Your task to perform on an android device: delete location history Image 0: 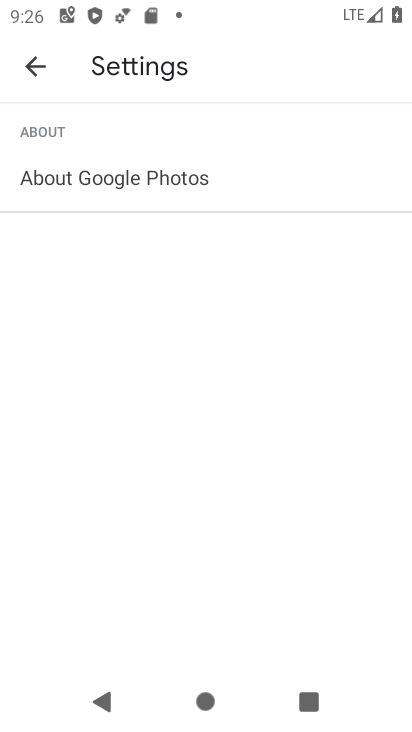
Step 0: press home button
Your task to perform on an android device: delete location history Image 1: 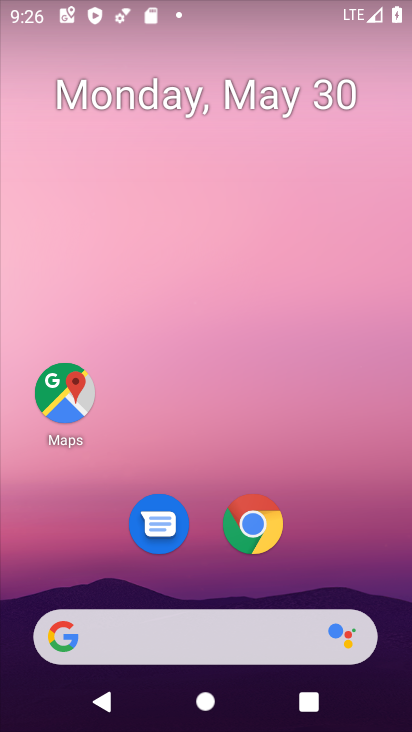
Step 1: click (61, 377)
Your task to perform on an android device: delete location history Image 2: 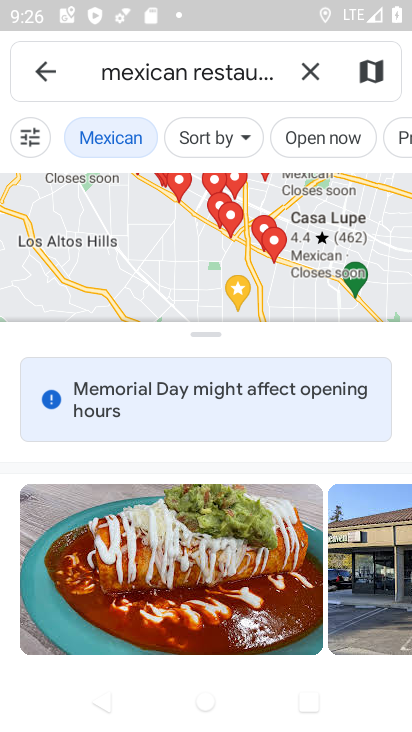
Step 2: click (309, 69)
Your task to perform on an android device: delete location history Image 3: 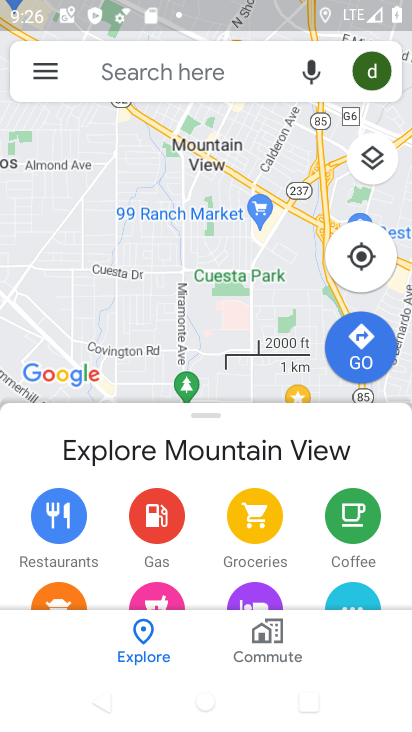
Step 3: click (39, 57)
Your task to perform on an android device: delete location history Image 4: 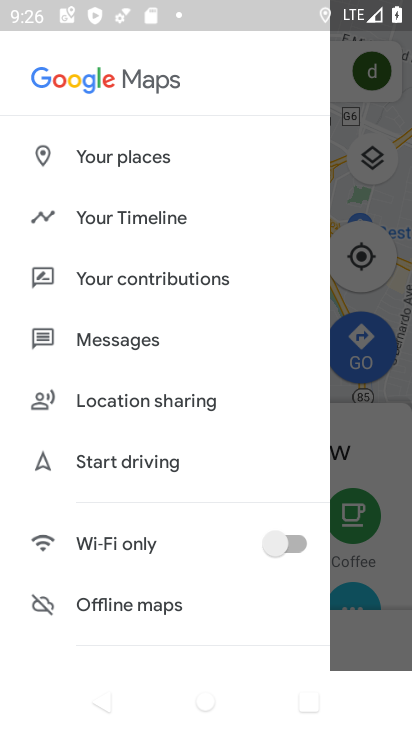
Step 4: click (129, 220)
Your task to perform on an android device: delete location history Image 5: 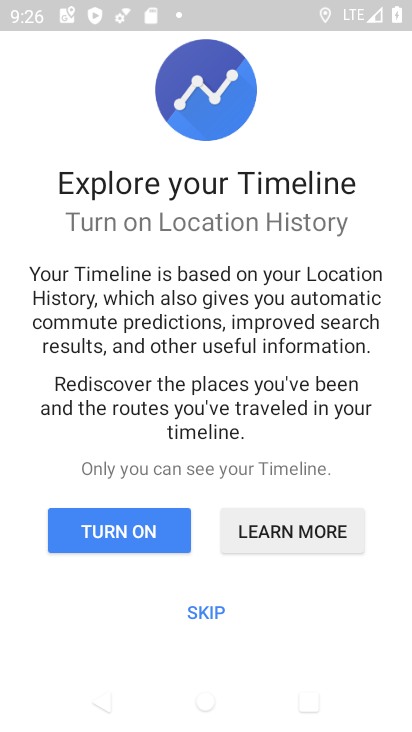
Step 5: click (216, 607)
Your task to perform on an android device: delete location history Image 6: 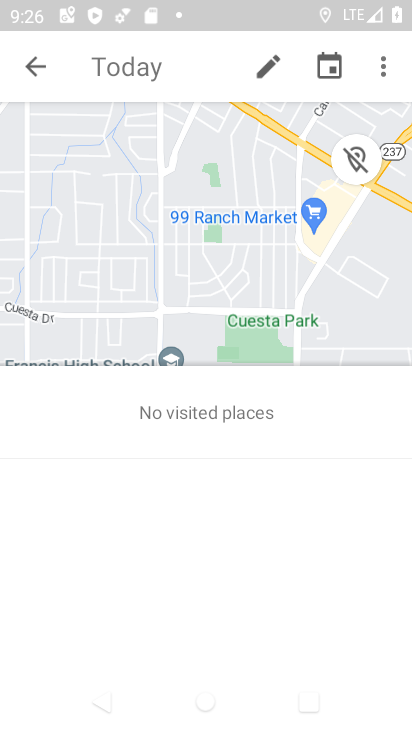
Step 6: click (379, 76)
Your task to perform on an android device: delete location history Image 7: 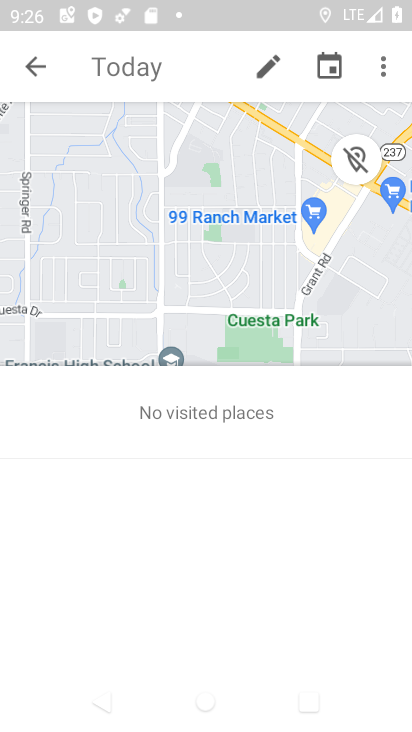
Step 7: click (381, 70)
Your task to perform on an android device: delete location history Image 8: 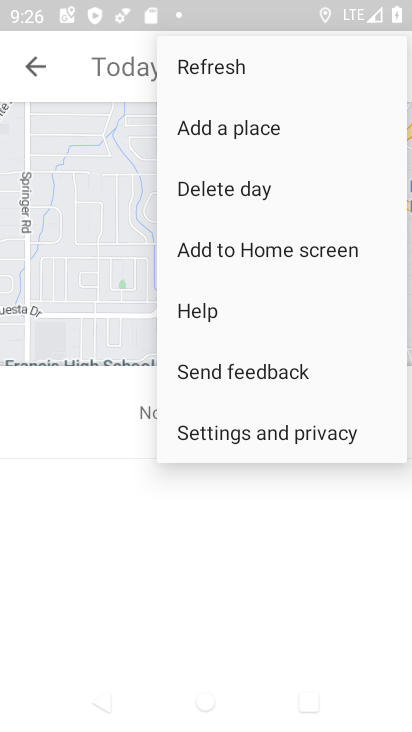
Step 8: click (303, 430)
Your task to perform on an android device: delete location history Image 9: 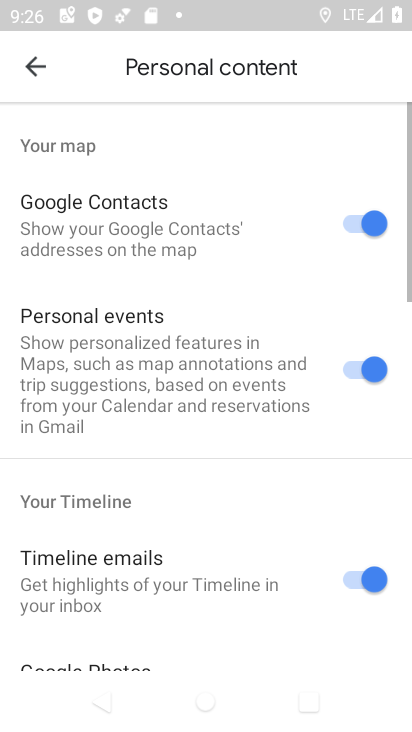
Step 9: drag from (234, 519) to (294, 28)
Your task to perform on an android device: delete location history Image 10: 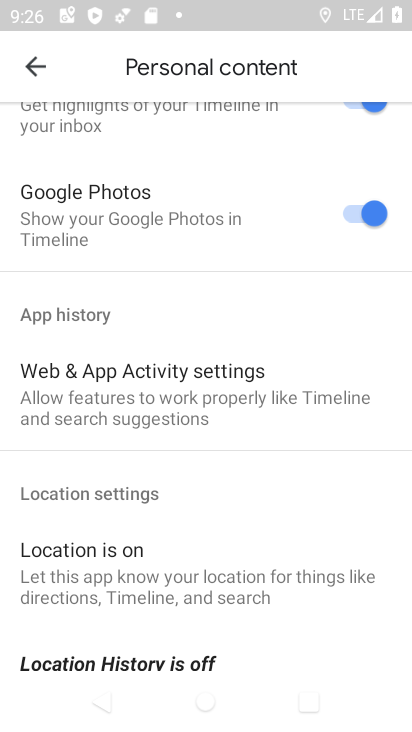
Step 10: drag from (220, 503) to (239, 81)
Your task to perform on an android device: delete location history Image 11: 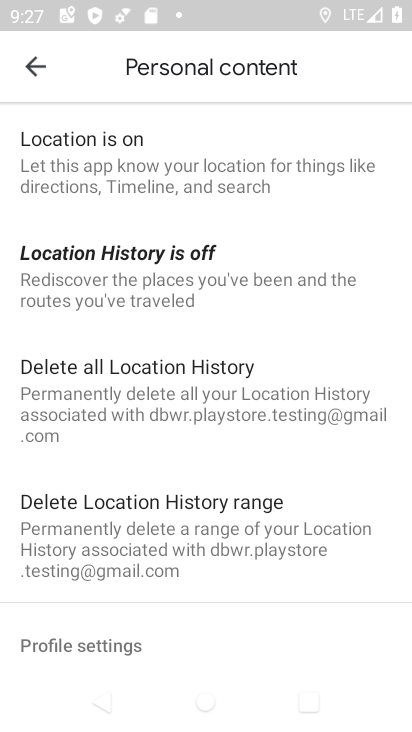
Step 11: click (227, 377)
Your task to perform on an android device: delete location history Image 12: 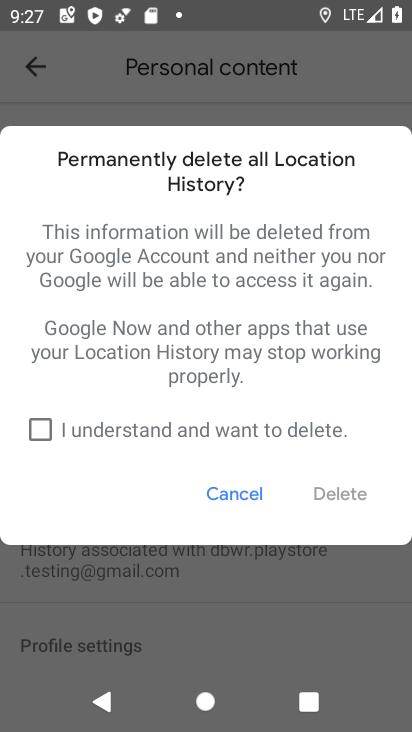
Step 12: click (37, 430)
Your task to perform on an android device: delete location history Image 13: 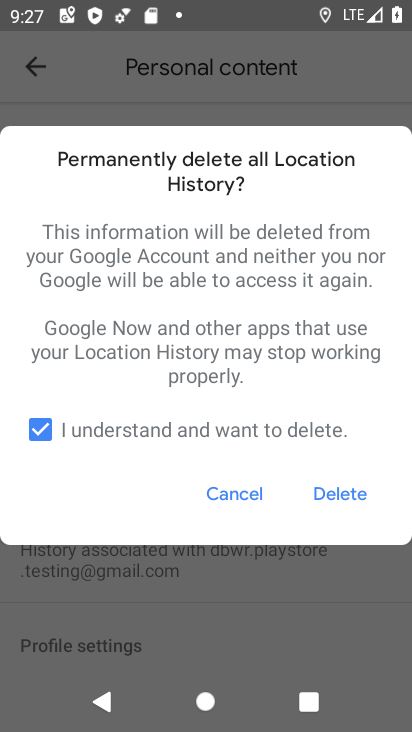
Step 13: click (344, 491)
Your task to perform on an android device: delete location history Image 14: 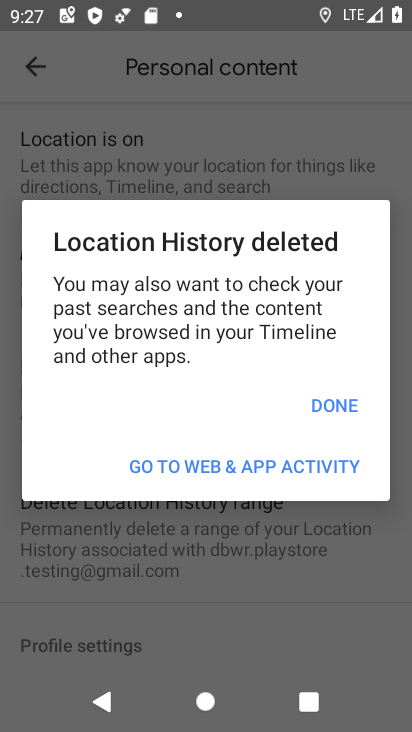
Step 14: click (331, 386)
Your task to perform on an android device: delete location history Image 15: 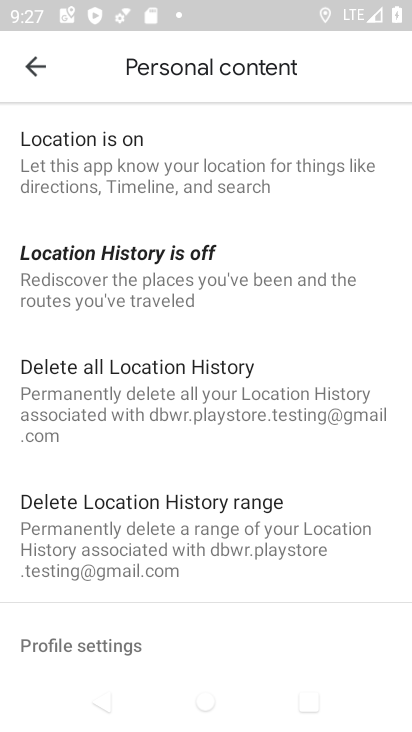
Step 15: task complete